Your task to perform on an android device: turn on showing notifications on the lock screen Image 0: 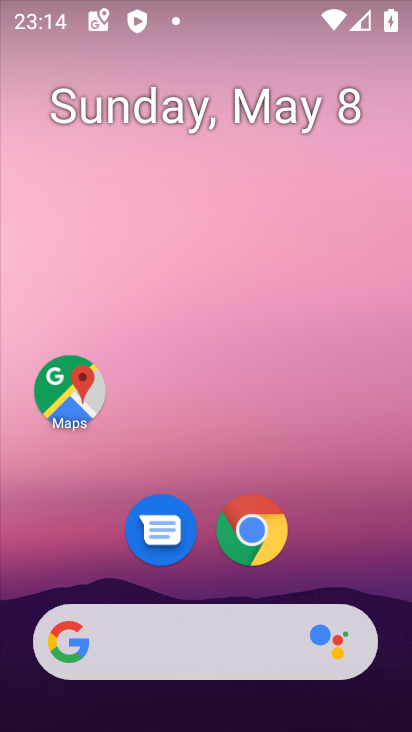
Step 0: drag from (343, 552) to (342, 152)
Your task to perform on an android device: turn on showing notifications on the lock screen Image 1: 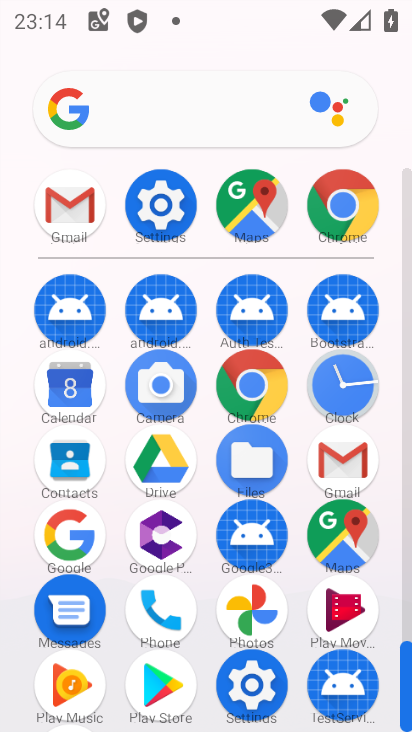
Step 1: click (271, 699)
Your task to perform on an android device: turn on showing notifications on the lock screen Image 2: 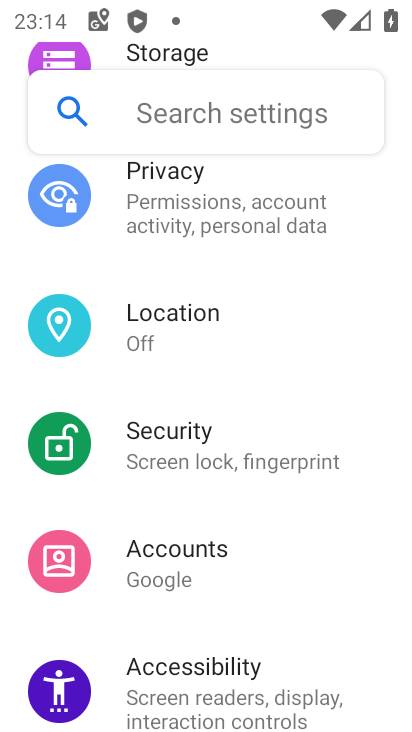
Step 2: drag from (283, 289) to (270, 601)
Your task to perform on an android device: turn on showing notifications on the lock screen Image 3: 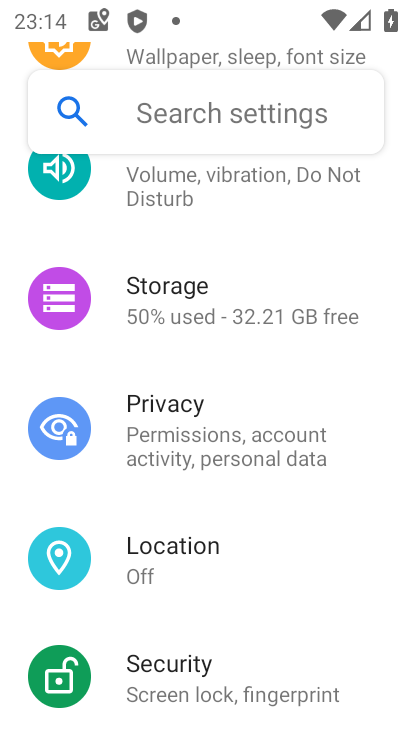
Step 3: drag from (242, 294) to (273, 549)
Your task to perform on an android device: turn on showing notifications on the lock screen Image 4: 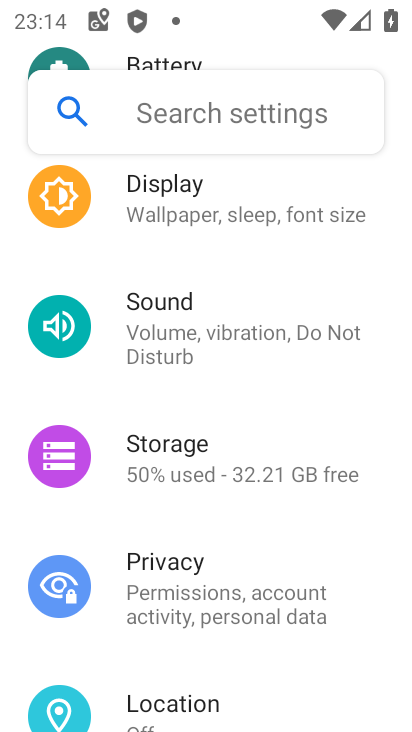
Step 4: drag from (252, 258) to (280, 571)
Your task to perform on an android device: turn on showing notifications on the lock screen Image 5: 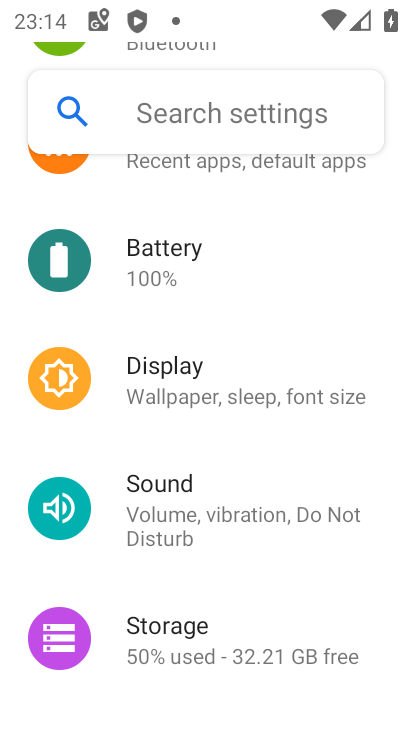
Step 5: drag from (271, 282) to (305, 540)
Your task to perform on an android device: turn on showing notifications on the lock screen Image 6: 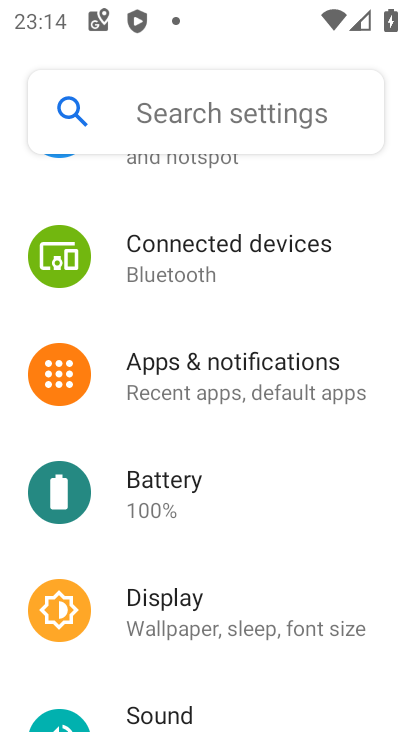
Step 6: click (287, 367)
Your task to perform on an android device: turn on showing notifications on the lock screen Image 7: 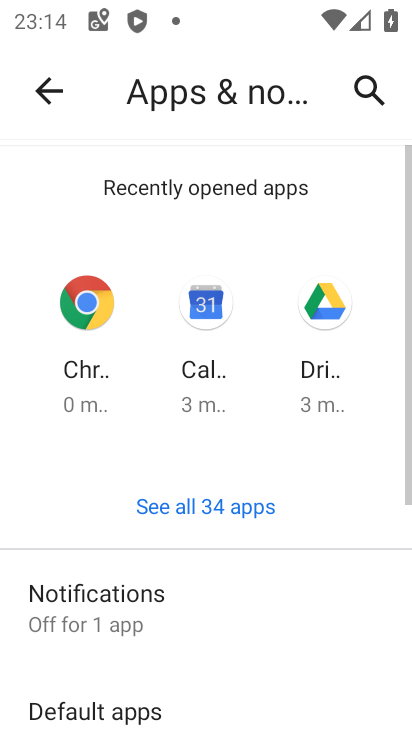
Step 7: click (136, 593)
Your task to perform on an android device: turn on showing notifications on the lock screen Image 8: 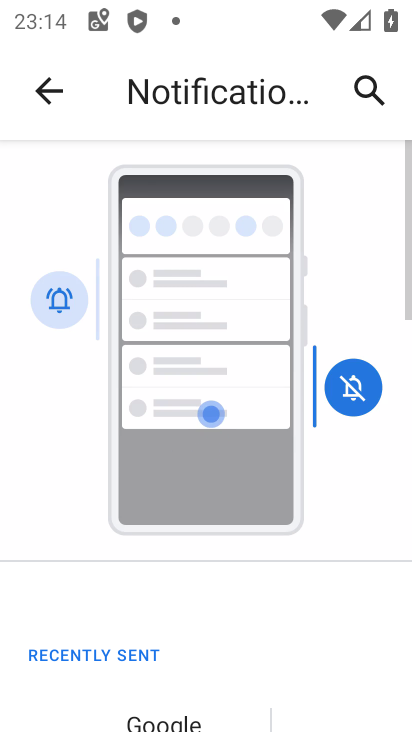
Step 8: drag from (320, 669) to (330, 170)
Your task to perform on an android device: turn on showing notifications on the lock screen Image 9: 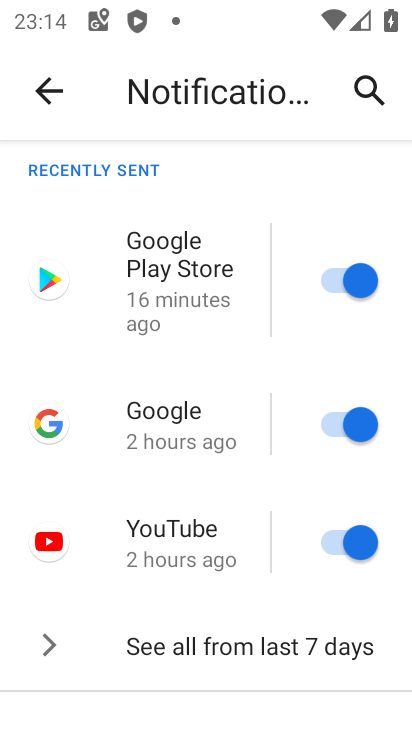
Step 9: drag from (268, 660) to (264, 230)
Your task to perform on an android device: turn on showing notifications on the lock screen Image 10: 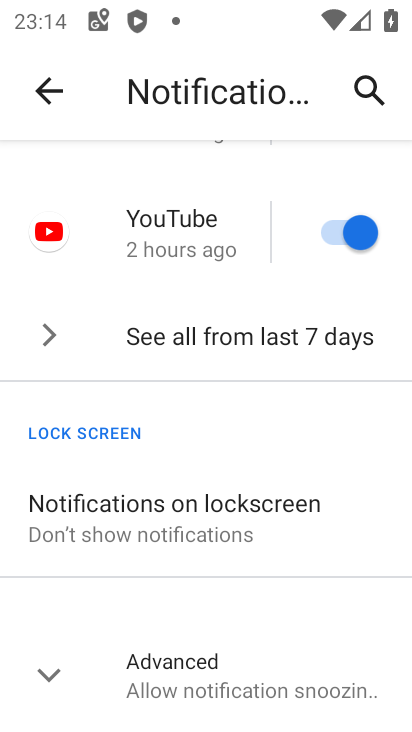
Step 10: click (202, 508)
Your task to perform on an android device: turn on showing notifications on the lock screen Image 11: 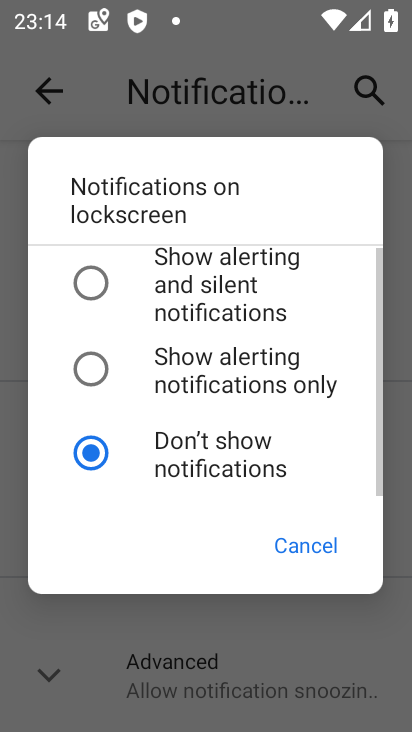
Step 11: click (84, 281)
Your task to perform on an android device: turn on showing notifications on the lock screen Image 12: 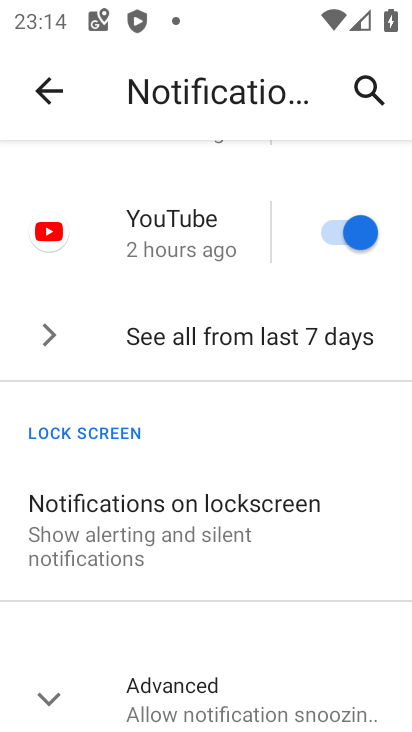
Step 12: task complete